Your task to perform on an android device: Search for sushi restaurants on Maps Image 0: 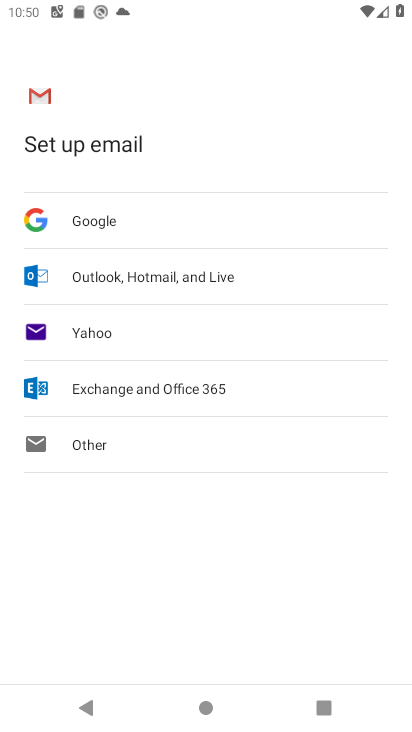
Step 0: press home button
Your task to perform on an android device: Search for sushi restaurants on Maps Image 1: 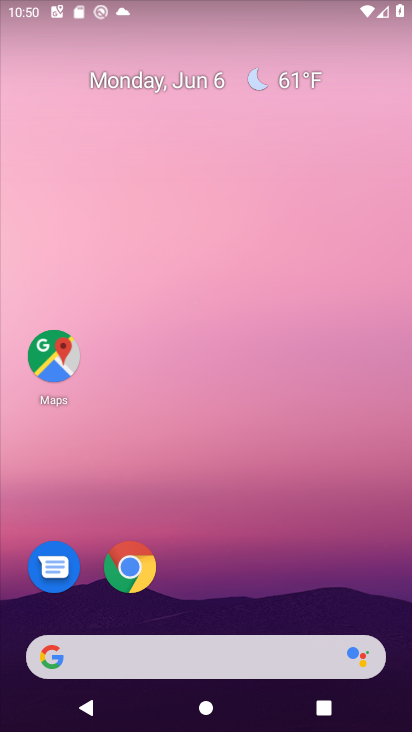
Step 1: drag from (224, 726) to (221, 128)
Your task to perform on an android device: Search for sushi restaurants on Maps Image 2: 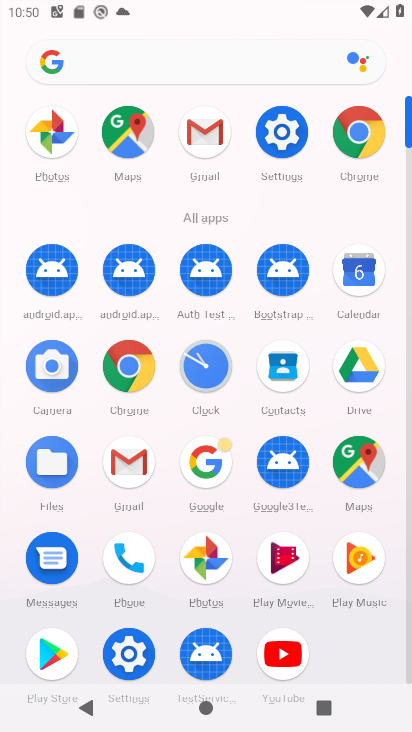
Step 2: click (350, 453)
Your task to perform on an android device: Search for sushi restaurants on Maps Image 3: 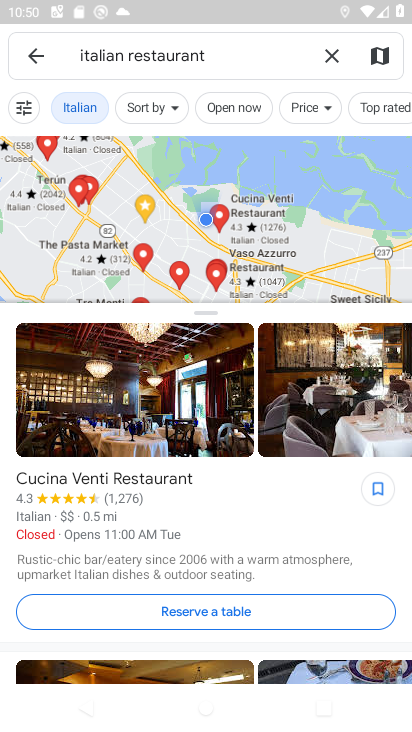
Step 3: click (330, 52)
Your task to perform on an android device: Search for sushi restaurants on Maps Image 4: 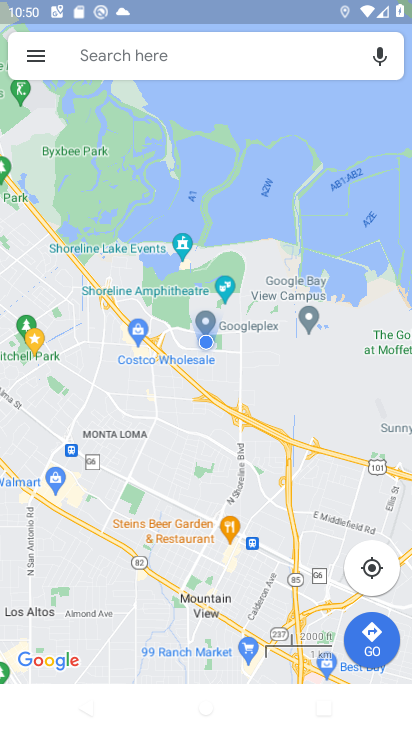
Step 4: click (168, 61)
Your task to perform on an android device: Search for sushi restaurants on Maps Image 5: 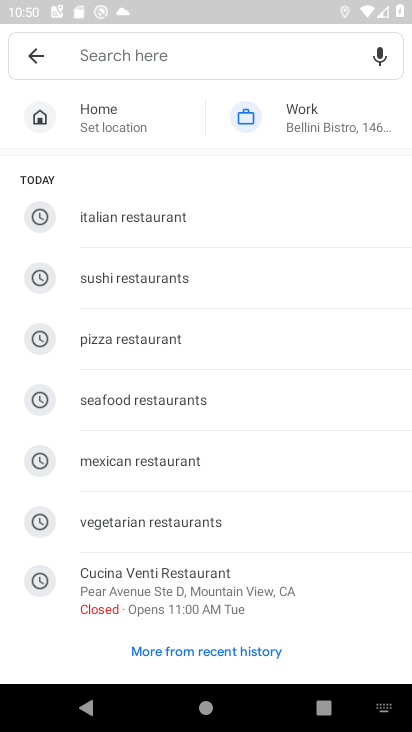
Step 5: type "sushi restaurants"
Your task to perform on an android device: Search for sushi restaurants on Maps Image 6: 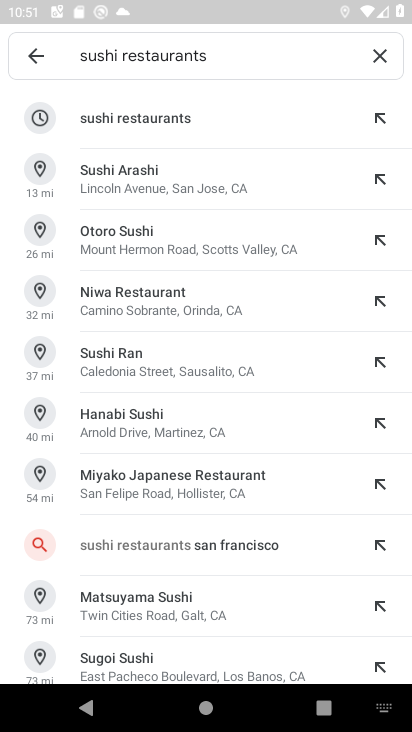
Step 6: click (134, 117)
Your task to perform on an android device: Search for sushi restaurants on Maps Image 7: 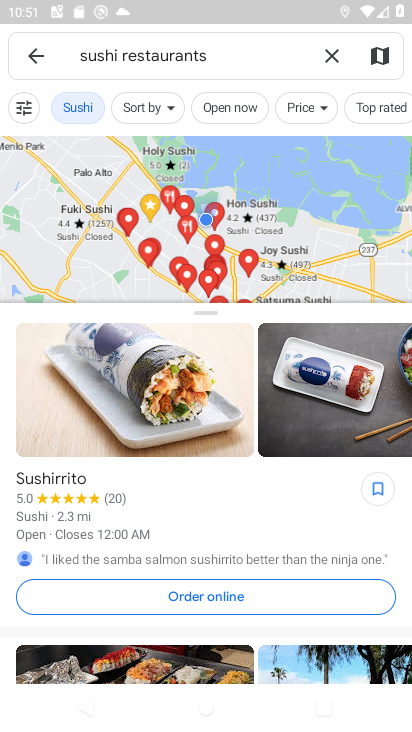
Step 7: task complete